Your task to perform on an android device: turn on bluetooth scan Image 0: 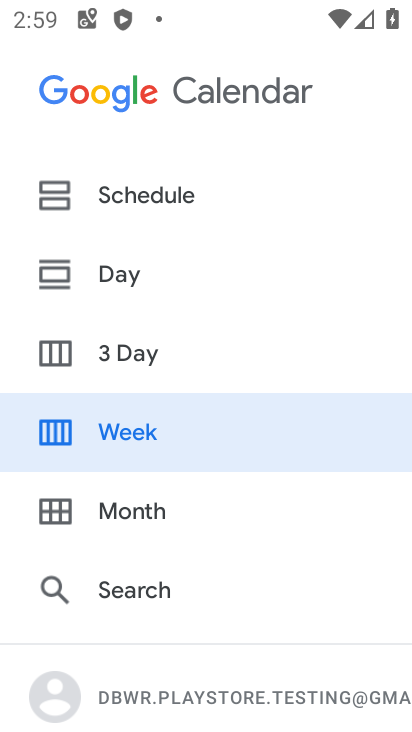
Step 0: press home button
Your task to perform on an android device: turn on bluetooth scan Image 1: 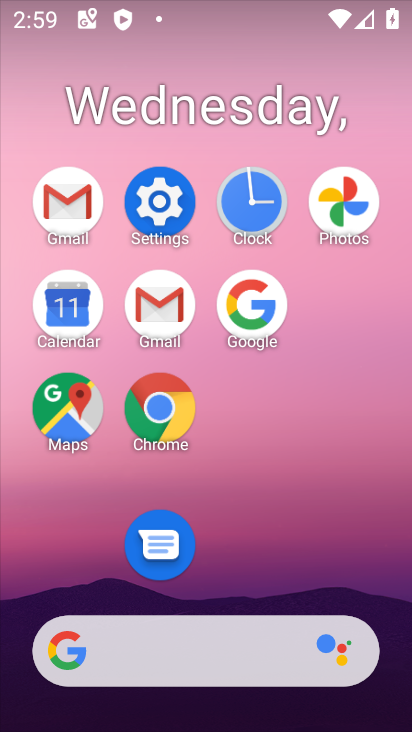
Step 1: click (166, 150)
Your task to perform on an android device: turn on bluetooth scan Image 2: 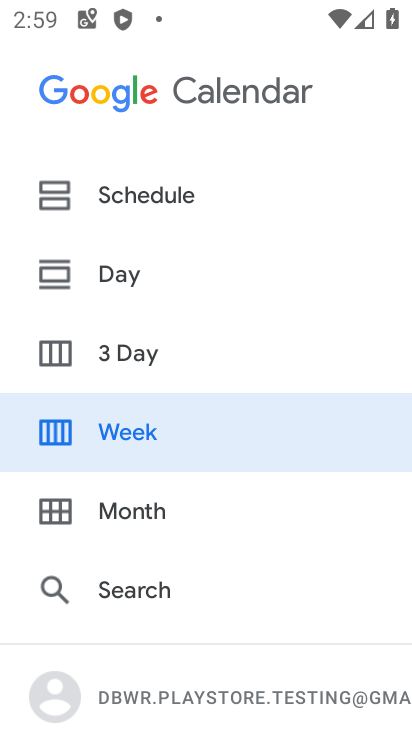
Step 2: press home button
Your task to perform on an android device: turn on bluetooth scan Image 3: 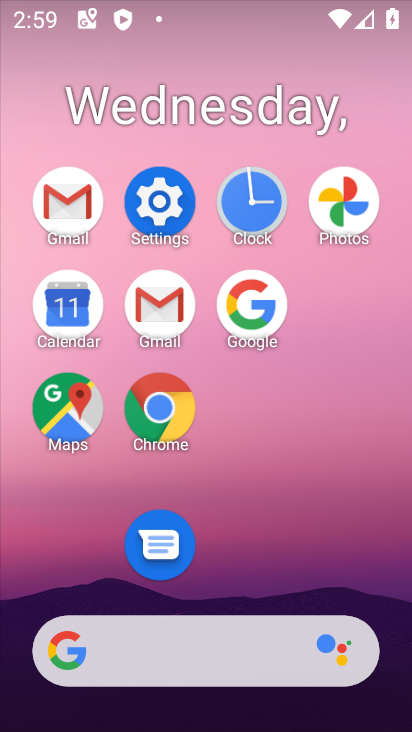
Step 3: click (154, 217)
Your task to perform on an android device: turn on bluetooth scan Image 4: 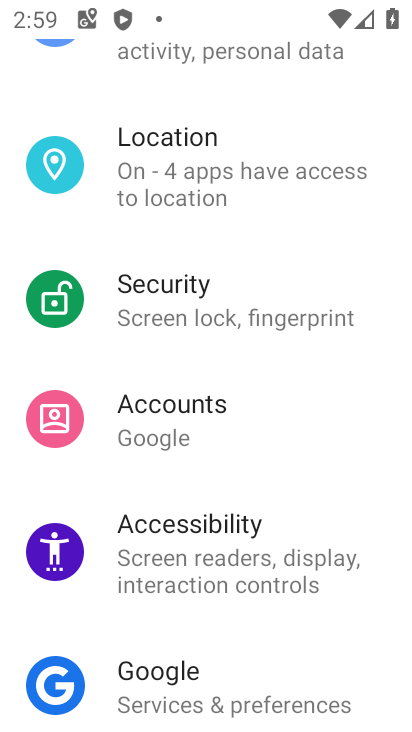
Step 4: click (231, 166)
Your task to perform on an android device: turn on bluetooth scan Image 5: 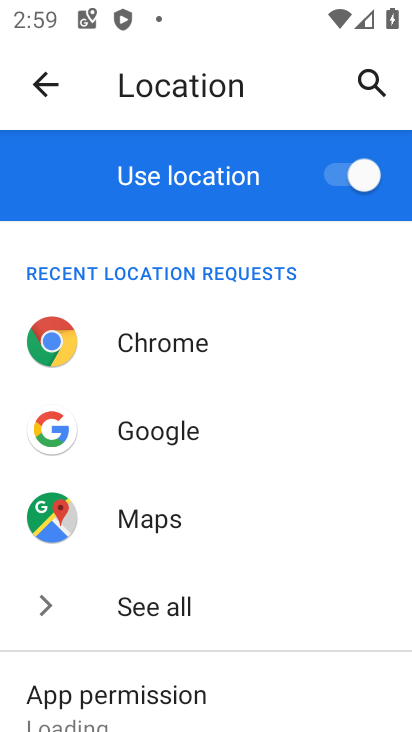
Step 5: drag from (212, 684) to (232, 161)
Your task to perform on an android device: turn on bluetooth scan Image 6: 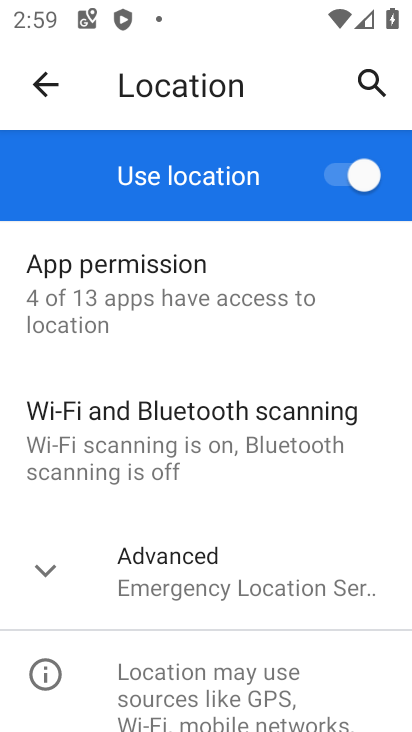
Step 6: click (214, 451)
Your task to perform on an android device: turn on bluetooth scan Image 7: 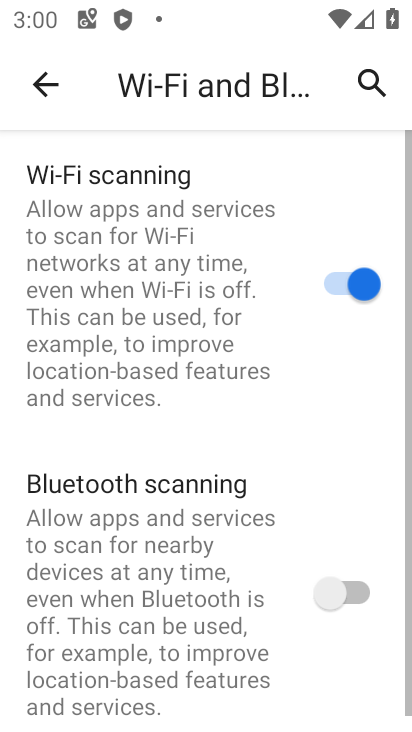
Step 7: click (351, 587)
Your task to perform on an android device: turn on bluetooth scan Image 8: 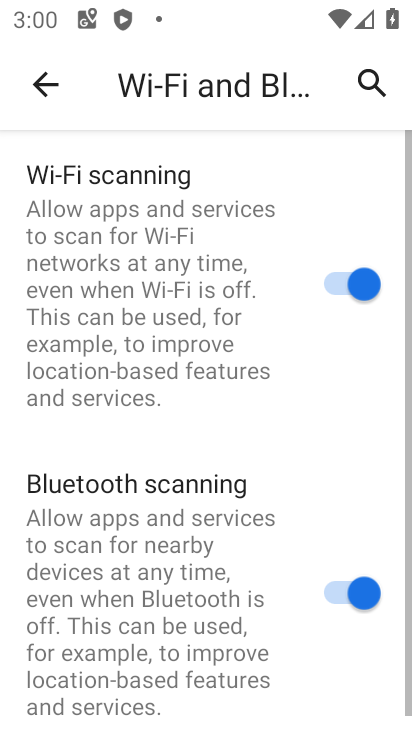
Step 8: task complete